Your task to perform on an android device: Go to Android settings Image 0: 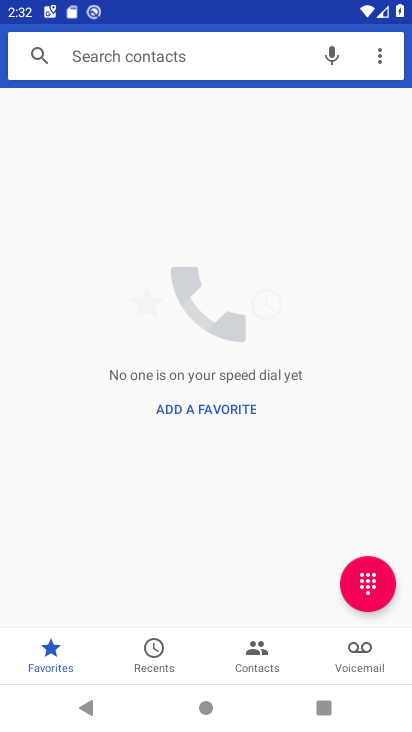
Step 0: press home button
Your task to perform on an android device: Go to Android settings Image 1: 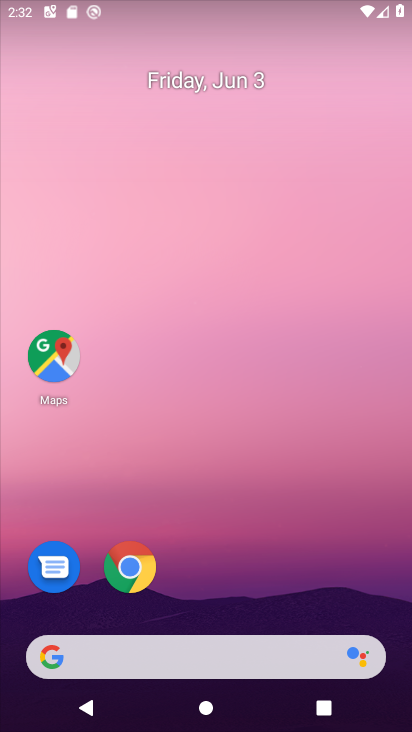
Step 1: drag from (230, 558) to (226, 271)
Your task to perform on an android device: Go to Android settings Image 2: 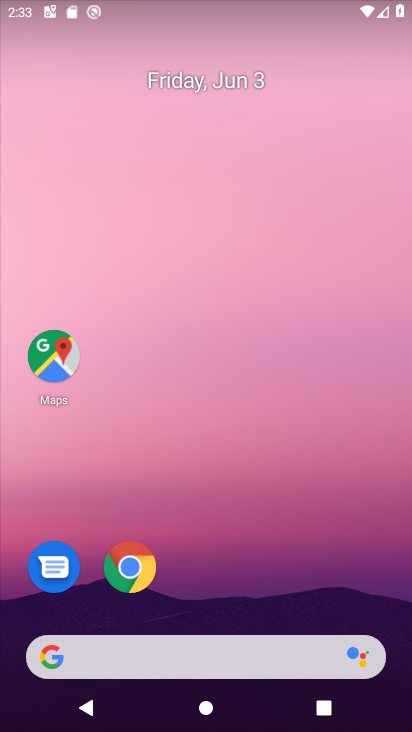
Step 2: drag from (212, 588) to (224, 268)
Your task to perform on an android device: Go to Android settings Image 3: 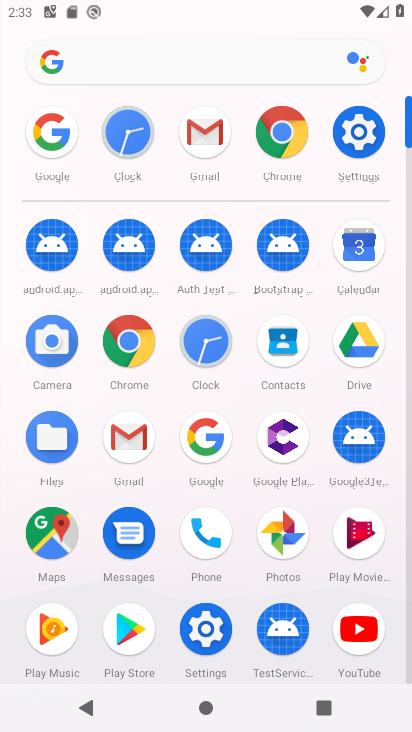
Step 3: click (353, 120)
Your task to perform on an android device: Go to Android settings Image 4: 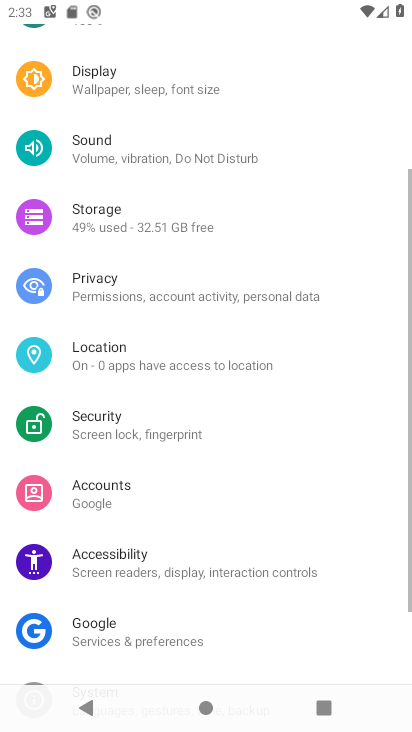
Step 4: task complete